Your task to perform on an android device: open wifi settings Image 0: 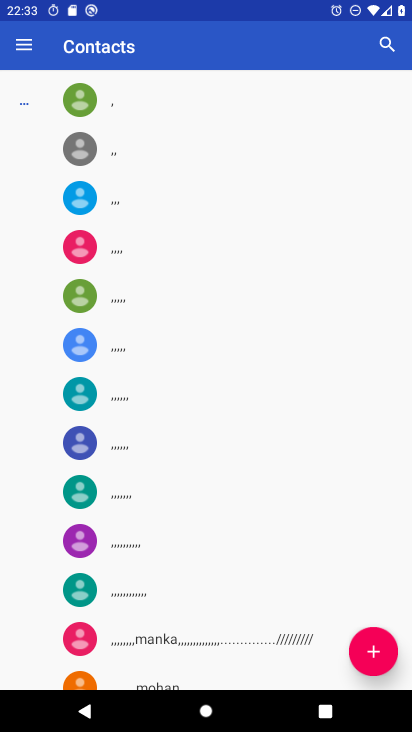
Step 0: press home button
Your task to perform on an android device: open wifi settings Image 1: 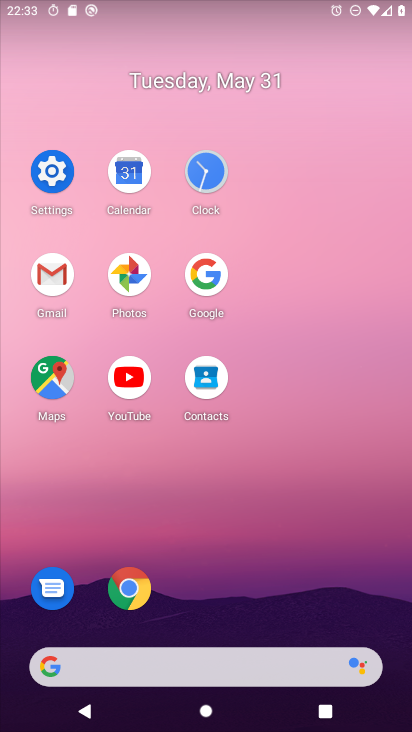
Step 1: click (52, 166)
Your task to perform on an android device: open wifi settings Image 2: 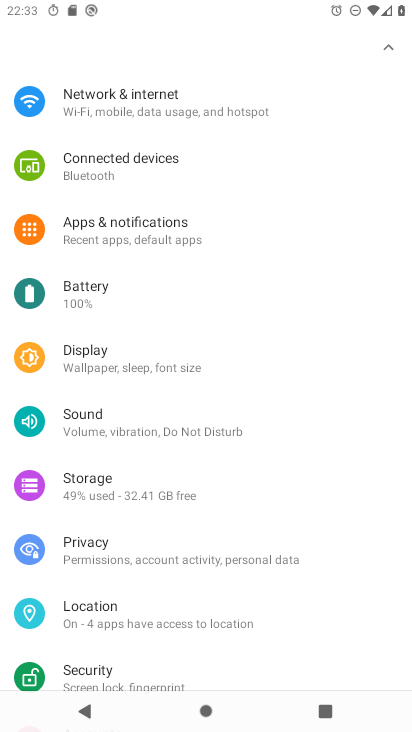
Step 2: click (192, 99)
Your task to perform on an android device: open wifi settings Image 3: 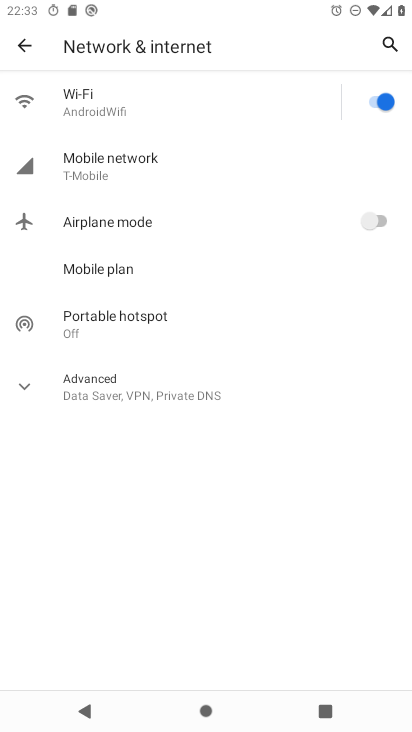
Step 3: click (166, 121)
Your task to perform on an android device: open wifi settings Image 4: 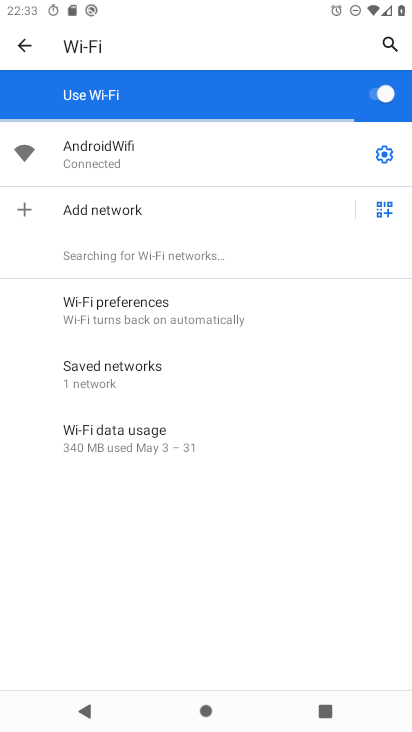
Step 4: click (374, 152)
Your task to perform on an android device: open wifi settings Image 5: 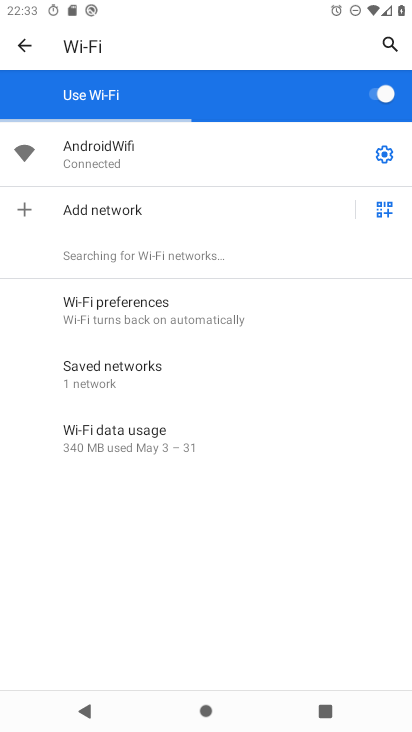
Step 5: click (387, 153)
Your task to perform on an android device: open wifi settings Image 6: 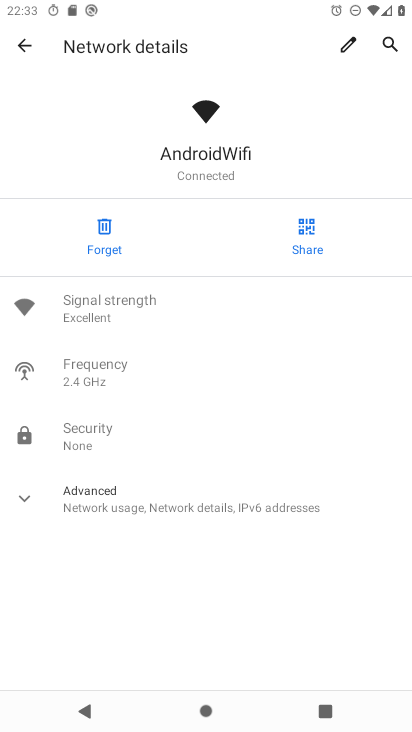
Step 6: task complete